Your task to perform on an android device: turn smart compose on in the gmail app Image 0: 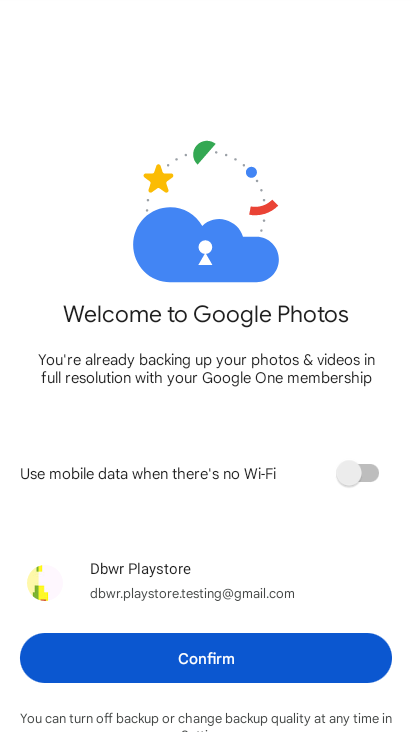
Step 0: press home button
Your task to perform on an android device: turn smart compose on in the gmail app Image 1: 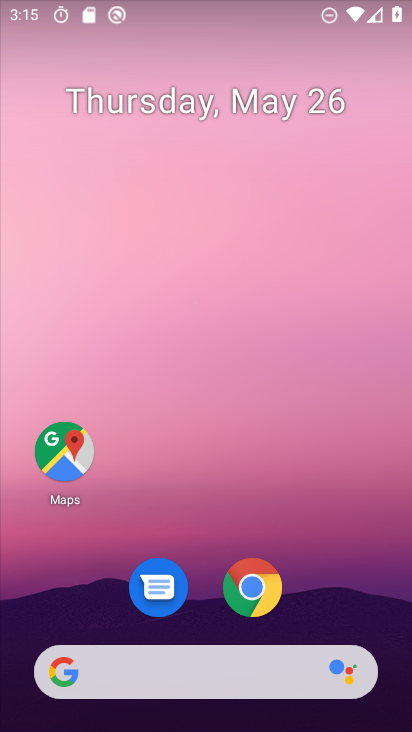
Step 1: drag from (279, 477) to (274, 145)
Your task to perform on an android device: turn smart compose on in the gmail app Image 2: 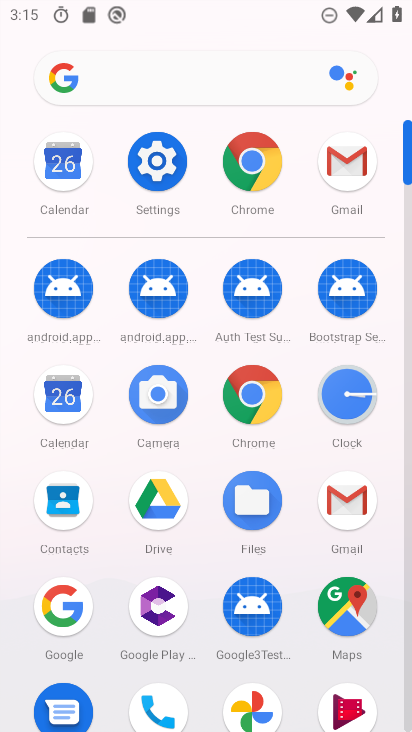
Step 2: click (342, 158)
Your task to perform on an android device: turn smart compose on in the gmail app Image 3: 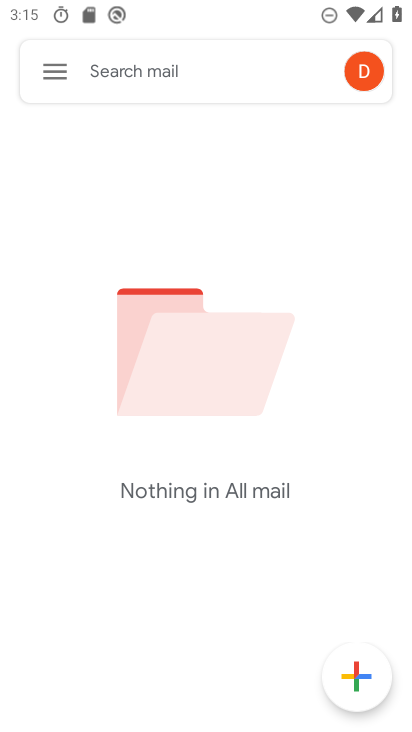
Step 3: click (45, 62)
Your task to perform on an android device: turn smart compose on in the gmail app Image 4: 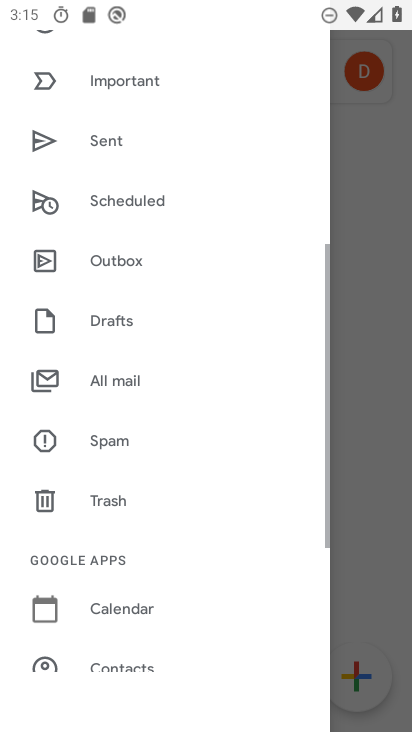
Step 4: drag from (118, 661) to (181, 219)
Your task to perform on an android device: turn smart compose on in the gmail app Image 5: 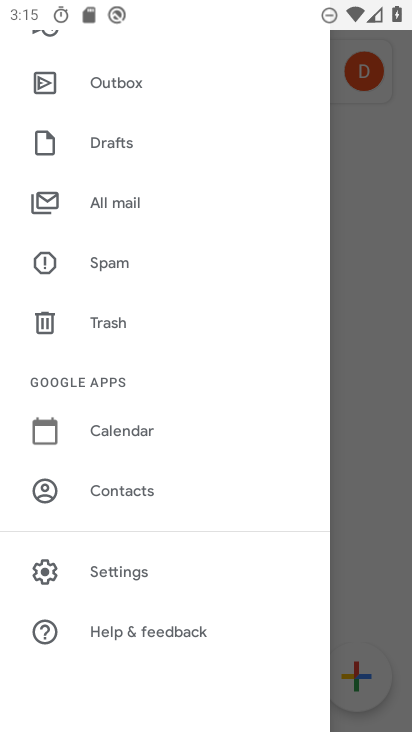
Step 5: click (133, 587)
Your task to perform on an android device: turn smart compose on in the gmail app Image 6: 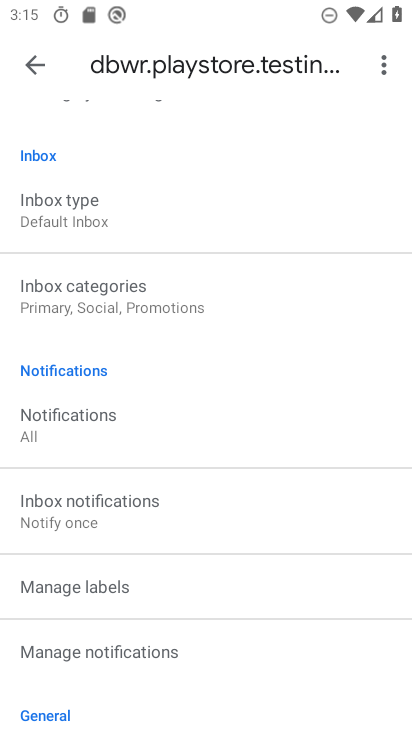
Step 6: task complete